Your task to perform on an android device: change the clock display to digital Image 0: 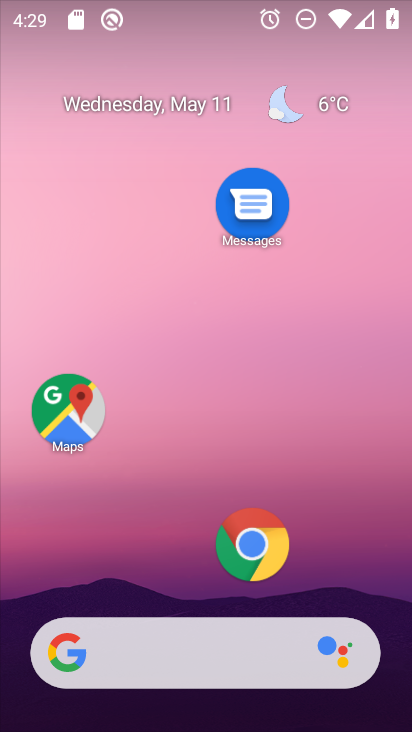
Step 0: drag from (156, 515) to (233, 73)
Your task to perform on an android device: change the clock display to digital Image 1: 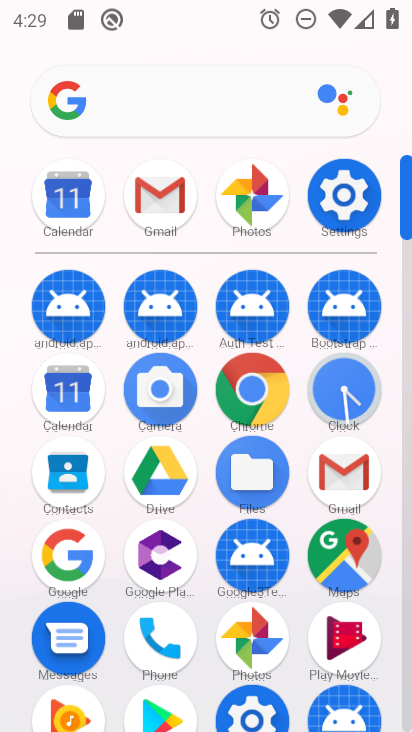
Step 1: click (348, 400)
Your task to perform on an android device: change the clock display to digital Image 2: 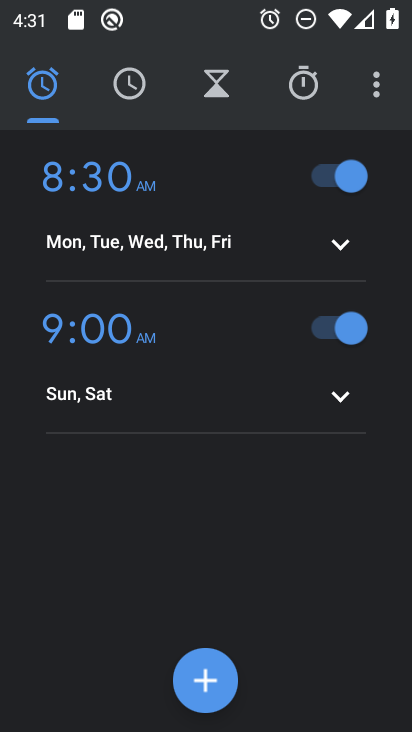
Step 2: click (371, 79)
Your task to perform on an android device: change the clock display to digital Image 3: 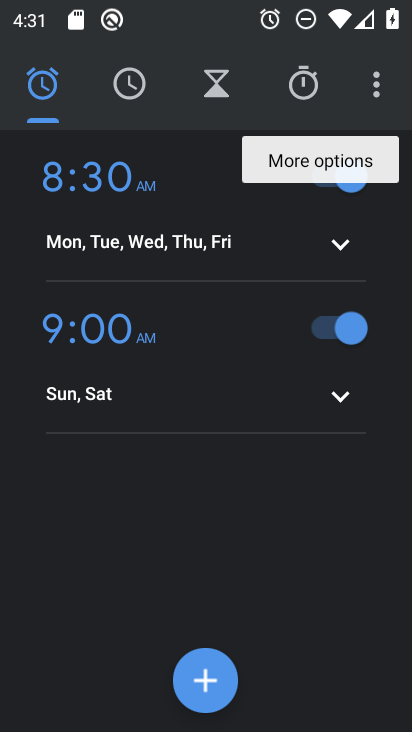
Step 3: click (371, 79)
Your task to perform on an android device: change the clock display to digital Image 4: 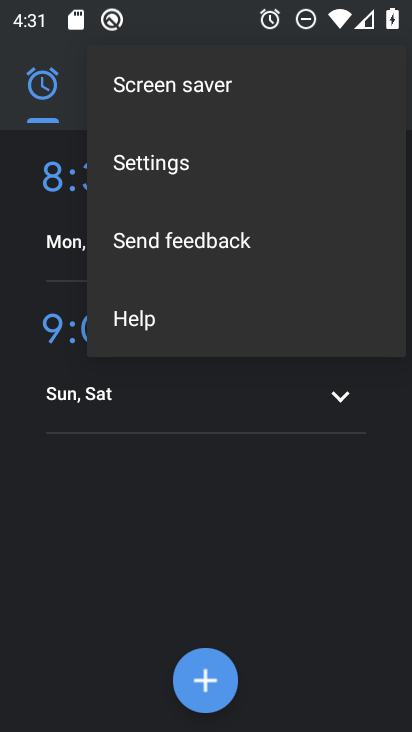
Step 4: click (180, 162)
Your task to perform on an android device: change the clock display to digital Image 5: 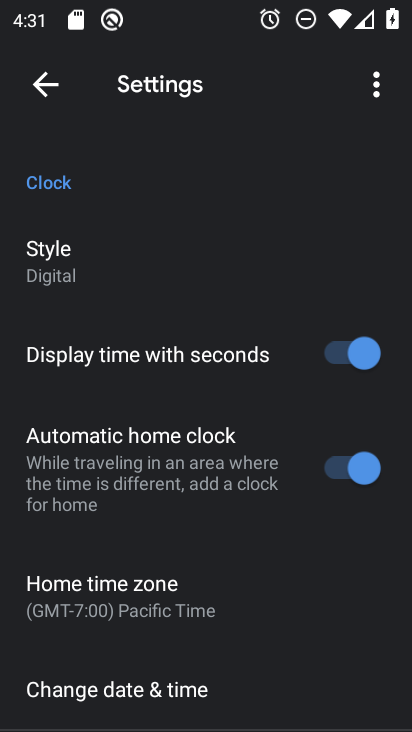
Step 5: task complete